Your task to perform on an android device: clear all cookies in the chrome app Image 0: 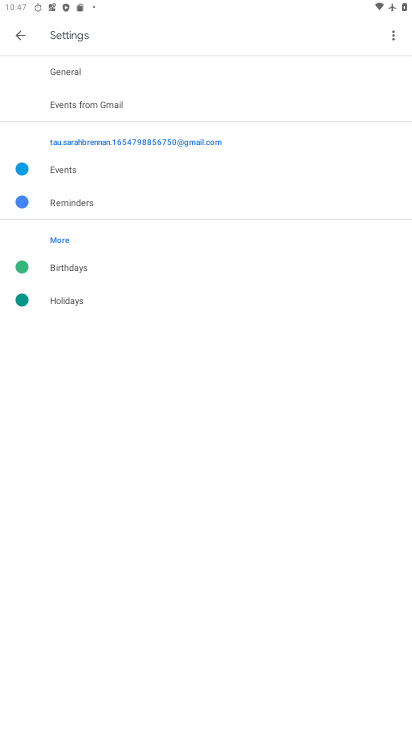
Step 0: press home button
Your task to perform on an android device: clear all cookies in the chrome app Image 1: 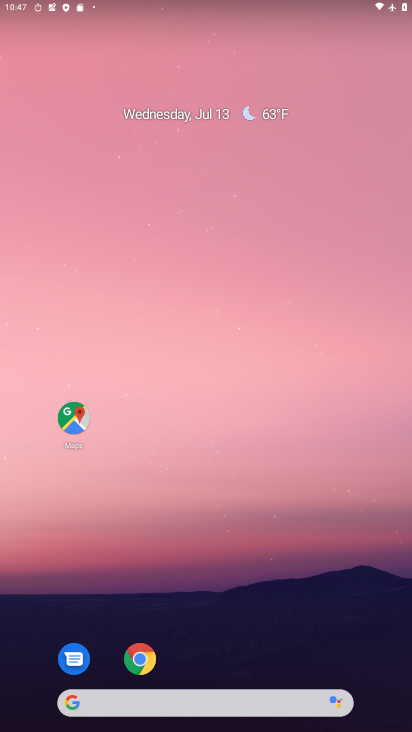
Step 1: drag from (310, 666) to (250, 91)
Your task to perform on an android device: clear all cookies in the chrome app Image 2: 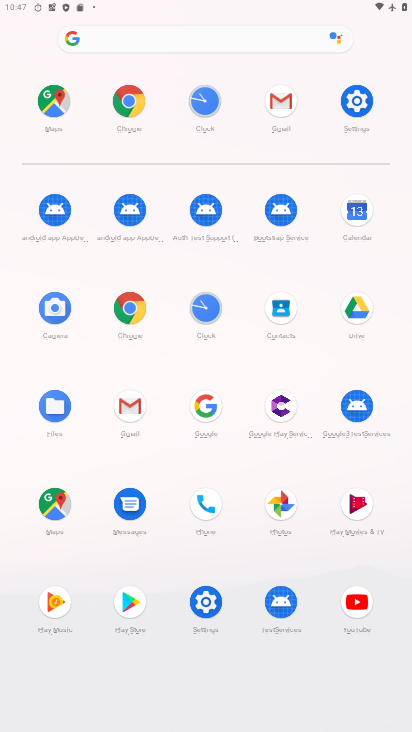
Step 2: click (124, 101)
Your task to perform on an android device: clear all cookies in the chrome app Image 3: 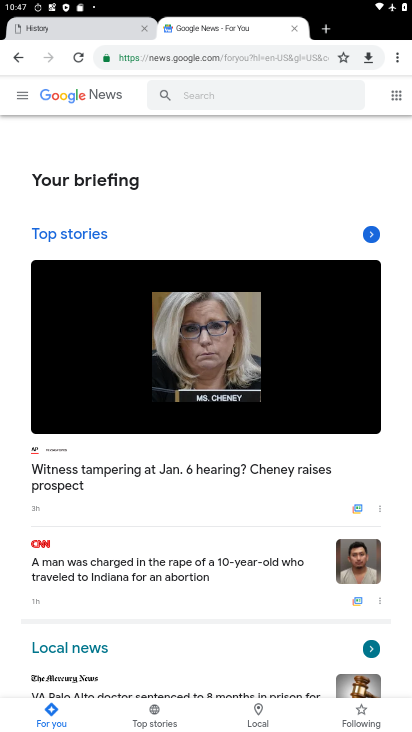
Step 3: drag from (393, 55) to (282, 188)
Your task to perform on an android device: clear all cookies in the chrome app Image 4: 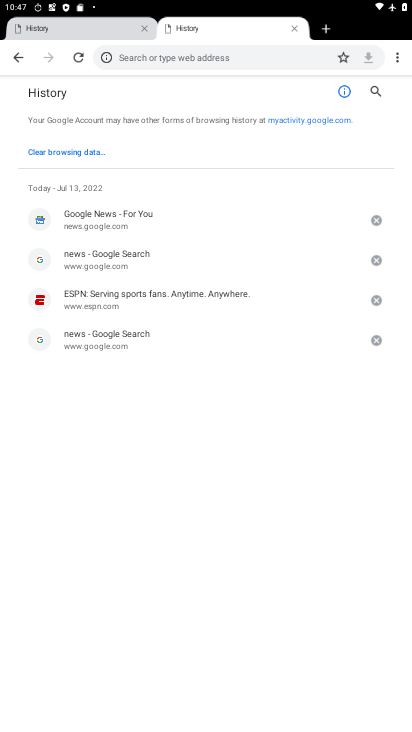
Step 4: click (86, 151)
Your task to perform on an android device: clear all cookies in the chrome app Image 5: 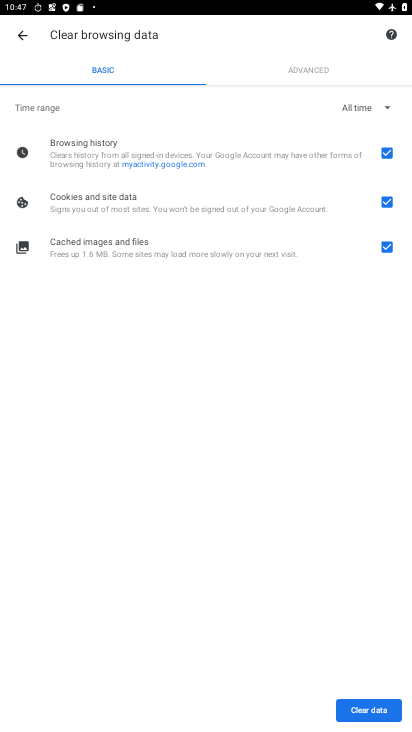
Step 5: click (360, 710)
Your task to perform on an android device: clear all cookies in the chrome app Image 6: 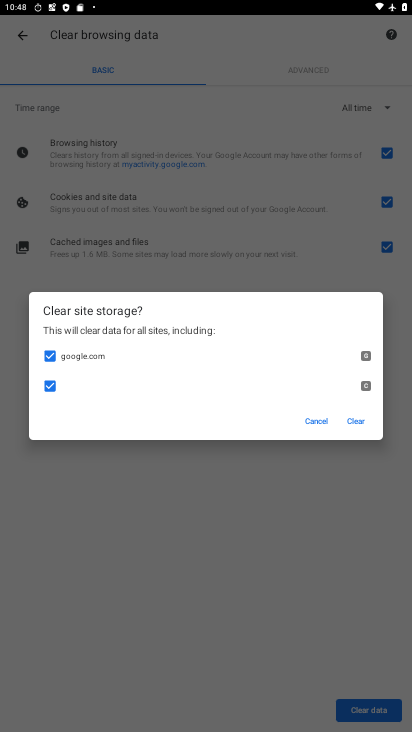
Step 6: click (352, 422)
Your task to perform on an android device: clear all cookies in the chrome app Image 7: 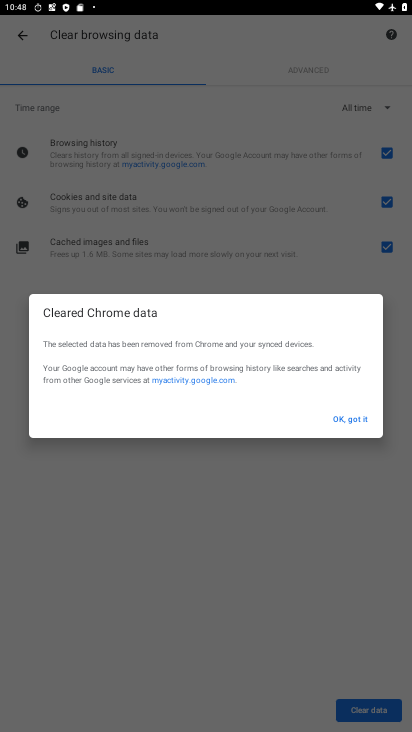
Step 7: task complete